Your task to perform on an android device: Search for lg ultragear on amazon, select the first entry, add it to the cart, then select checkout. Image 0: 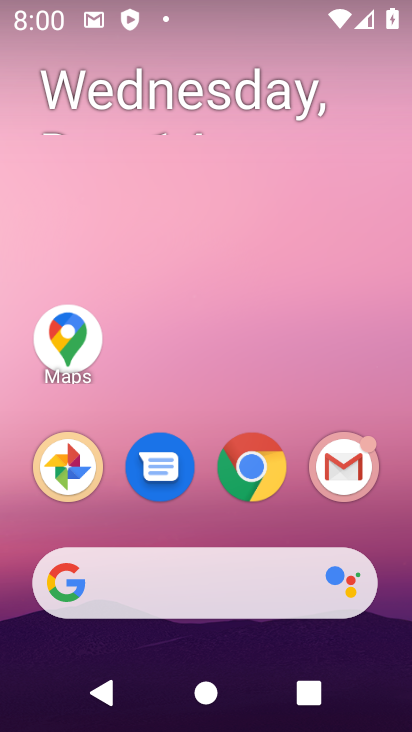
Step 0: click (236, 484)
Your task to perform on an android device: Search for lg ultragear on amazon, select the first entry, add it to the cart, then select checkout. Image 1: 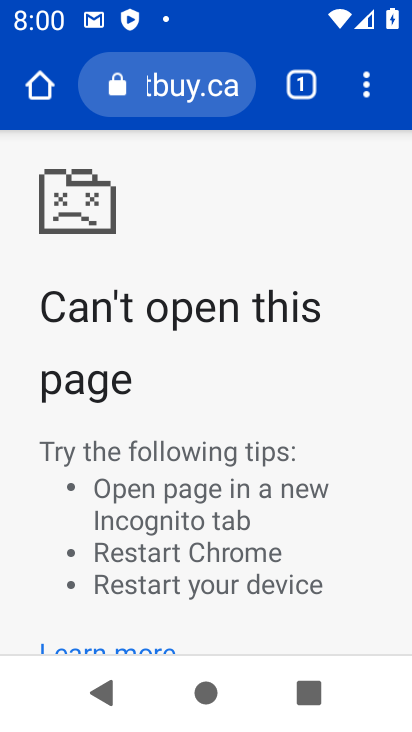
Step 1: click (162, 66)
Your task to perform on an android device: Search for lg ultragear on amazon, select the first entry, add it to the cart, then select checkout. Image 2: 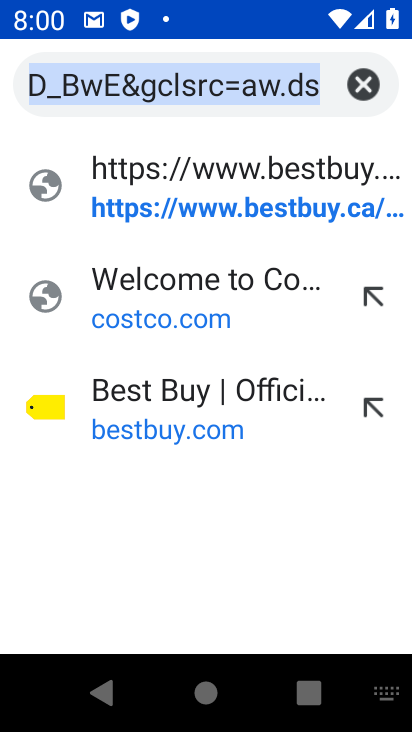
Step 2: click (373, 94)
Your task to perform on an android device: Search for lg ultragear on amazon, select the first entry, add it to the cart, then select checkout. Image 3: 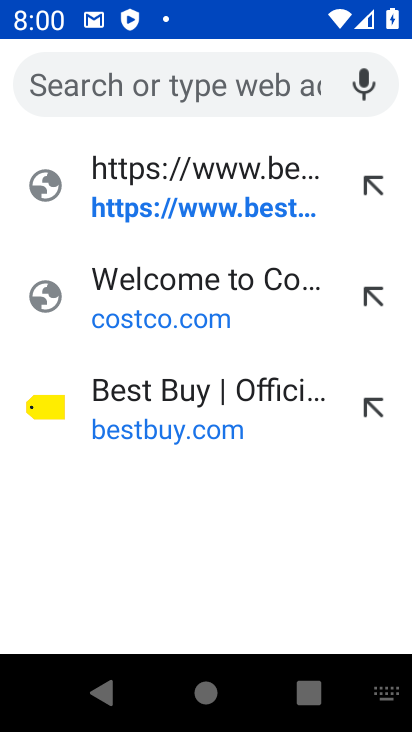
Step 3: type "amazon"
Your task to perform on an android device: Search for lg ultragear on amazon, select the first entry, add it to the cart, then select checkout. Image 4: 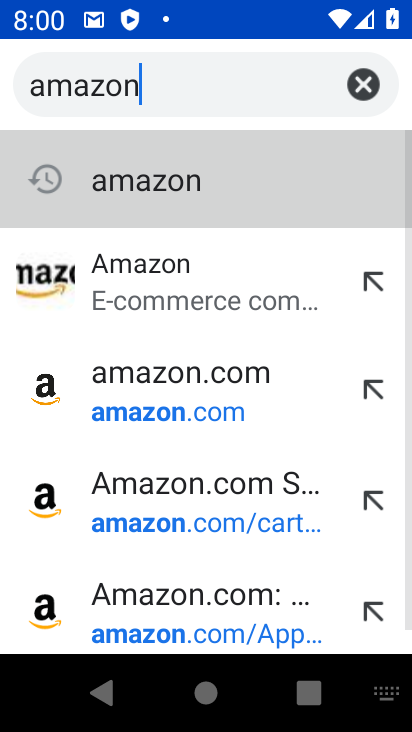
Step 4: click (200, 304)
Your task to perform on an android device: Search for lg ultragear on amazon, select the first entry, add it to the cart, then select checkout. Image 5: 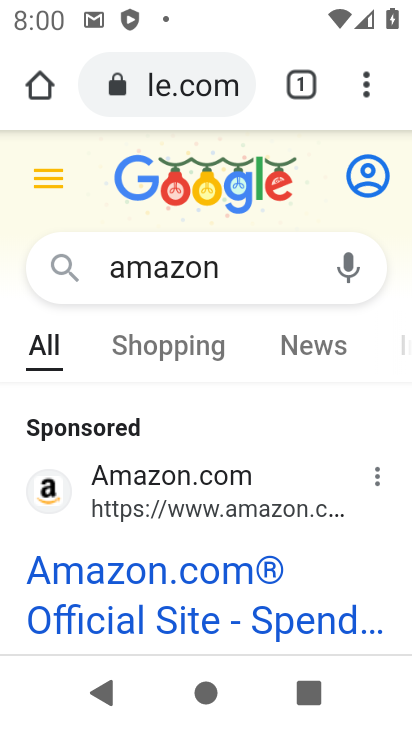
Step 5: click (122, 611)
Your task to perform on an android device: Search for lg ultragear on amazon, select the first entry, add it to the cart, then select checkout. Image 6: 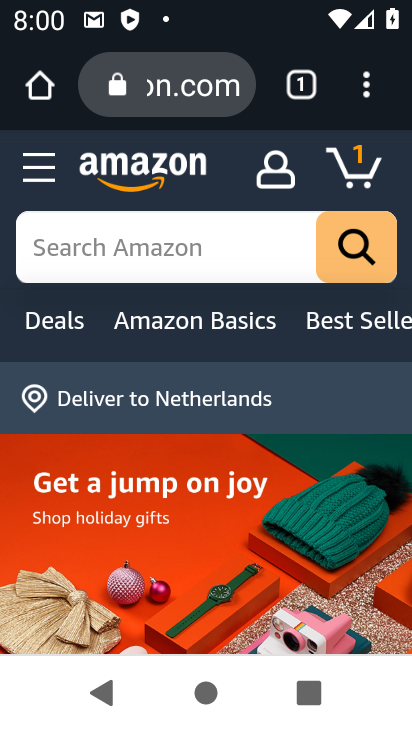
Step 6: click (128, 267)
Your task to perform on an android device: Search for lg ultragear on amazon, select the first entry, add it to the cart, then select checkout. Image 7: 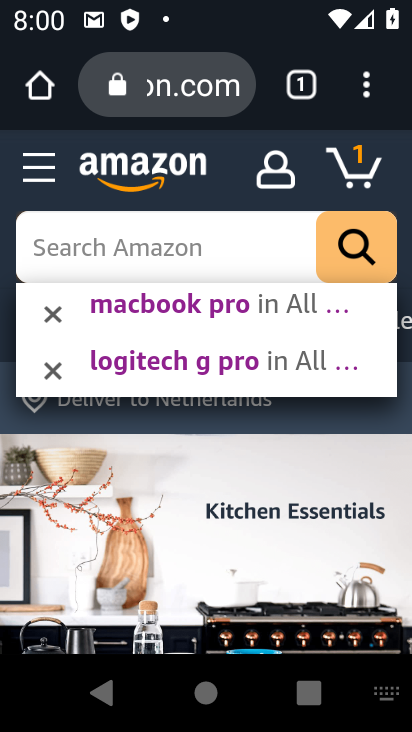
Step 7: type "lg ultragear"
Your task to perform on an android device: Search for lg ultragear on amazon, select the first entry, add it to the cart, then select checkout. Image 8: 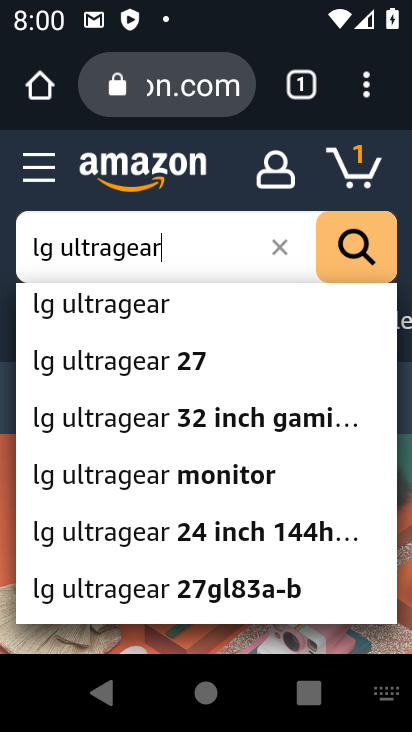
Step 8: click (365, 261)
Your task to perform on an android device: Search for lg ultragear on amazon, select the first entry, add it to the cart, then select checkout. Image 9: 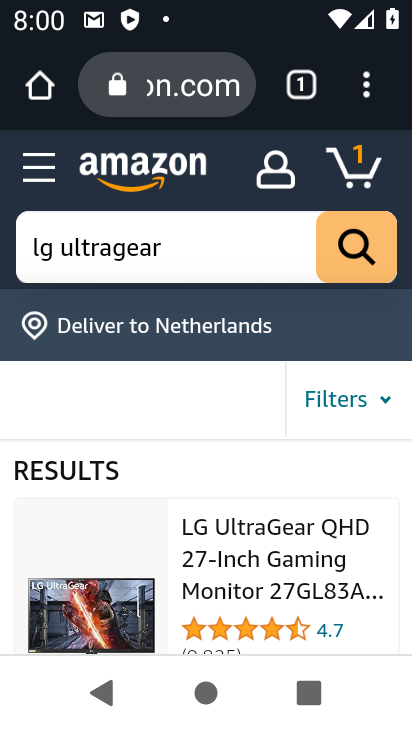
Step 9: click (254, 550)
Your task to perform on an android device: Search for lg ultragear on amazon, select the first entry, add it to the cart, then select checkout. Image 10: 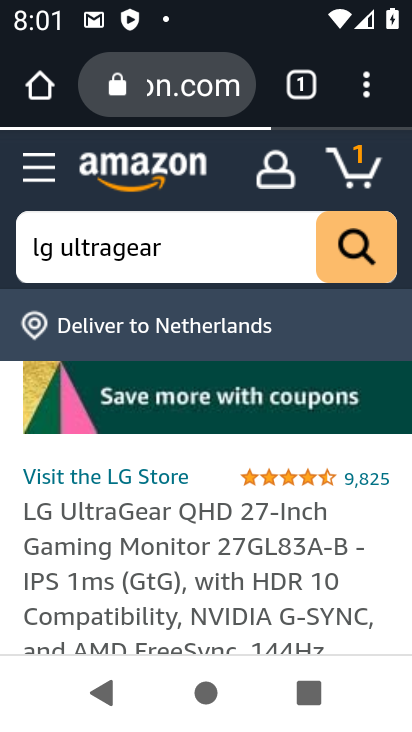
Step 10: drag from (234, 592) to (222, 261)
Your task to perform on an android device: Search for lg ultragear on amazon, select the first entry, add it to the cart, then select checkout. Image 11: 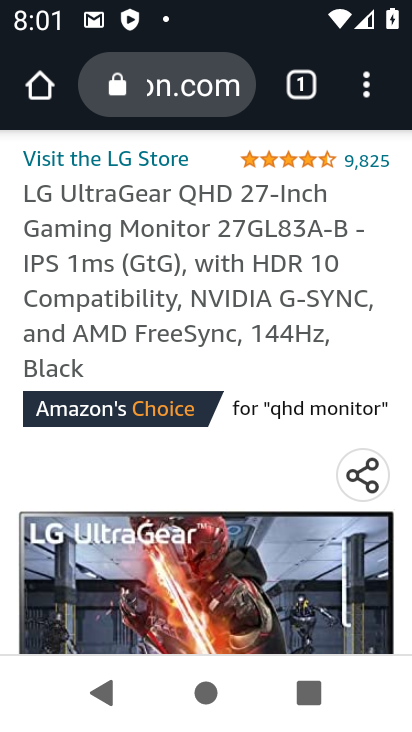
Step 11: drag from (197, 465) to (186, 162)
Your task to perform on an android device: Search for lg ultragear on amazon, select the first entry, add it to the cart, then select checkout. Image 12: 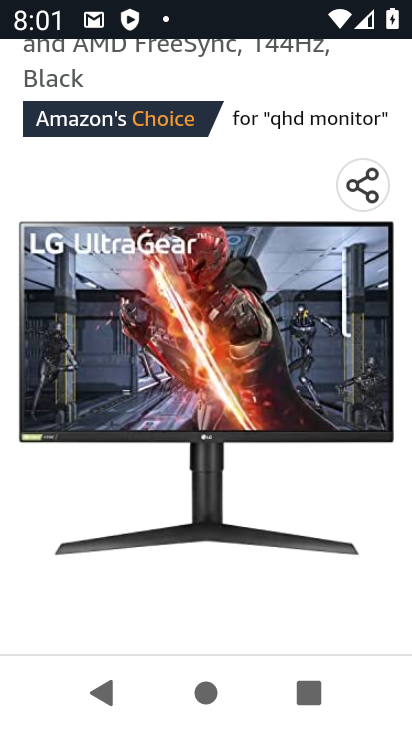
Step 12: drag from (238, 564) to (253, 242)
Your task to perform on an android device: Search for lg ultragear on amazon, select the first entry, add it to the cart, then select checkout. Image 13: 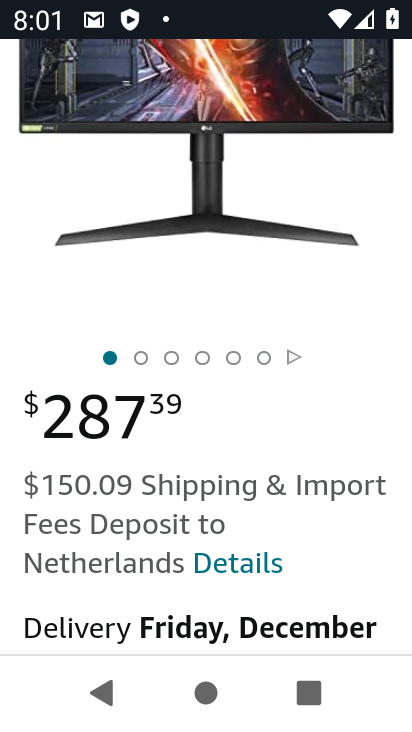
Step 13: drag from (266, 581) to (297, 226)
Your task to perform on an android device: Search for lg ultragear on amazon, select the first entry, add it to the cart, then select checkout. Image 14: 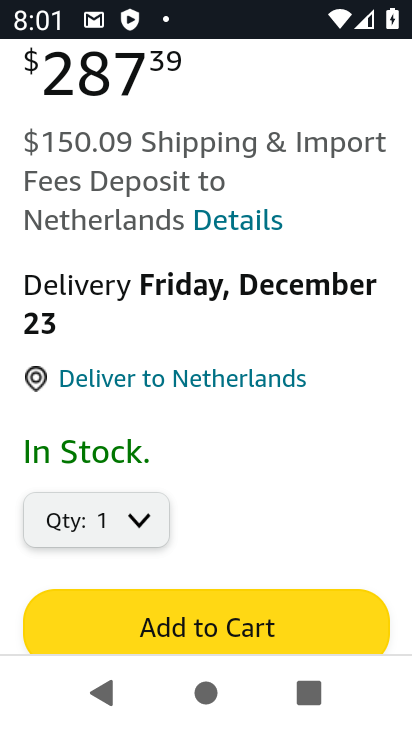
Step 14: click (247, 617)
Your task to perform on an android device: Search for lg ultragear on amazon, select the first entry, add it to the cart, then select checkout. Image 15: 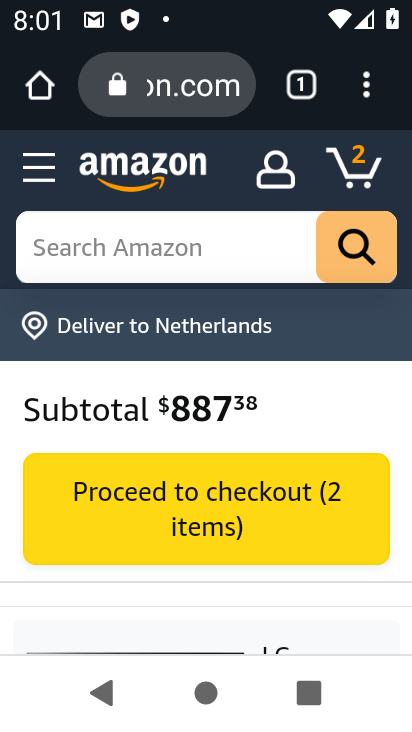
Step 15: task complete